Your task to perform on an android device: Open the calendar app, open the side menu, and click the "Day" option Image 0: 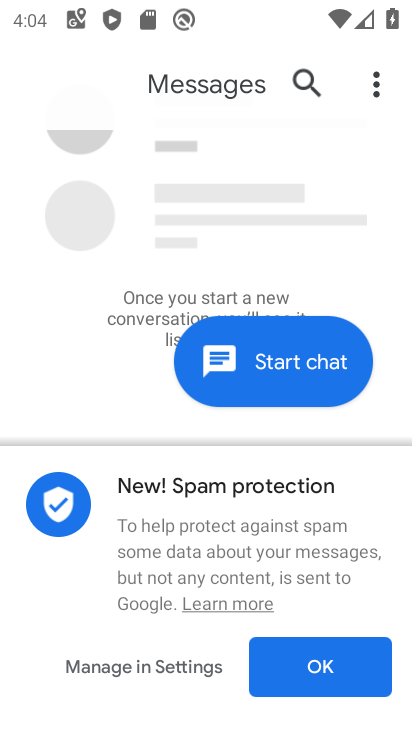
Step 0: press home button
Your task to perform on an android device: Open the calendar app, open the side menu, and click the "Day" option Image 1: 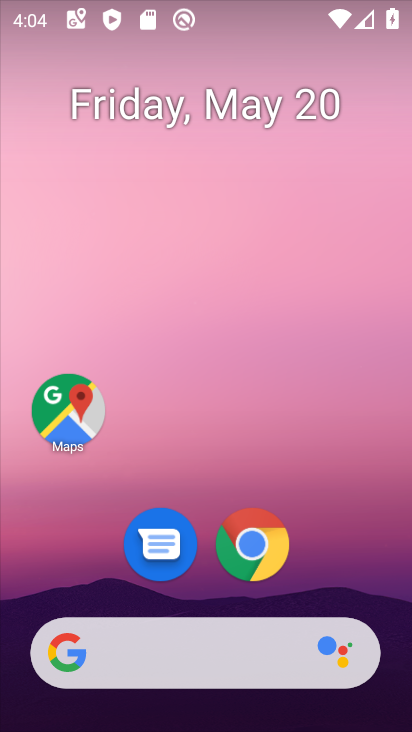
Step 1: drag from (351, 560) to (392, 4)
Your task to perform on an android device: Open the calendar app, open the side menu, and click the "Day" option Image 2: 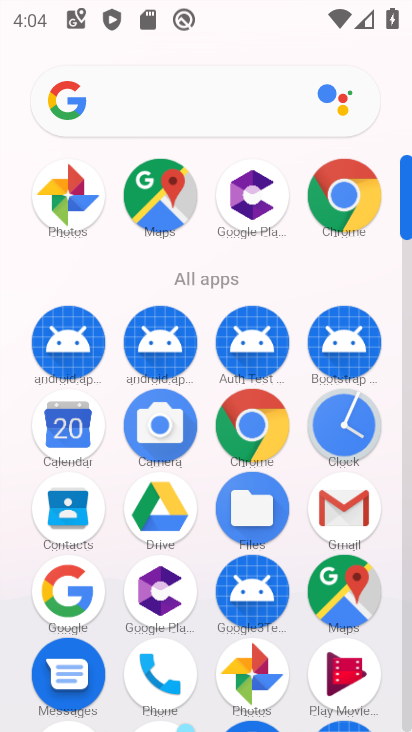
Step 2: click (61, 433)
Your task to perform on an android device: Open the calendar app, open the side menu, and click the "Day" option Image 3: 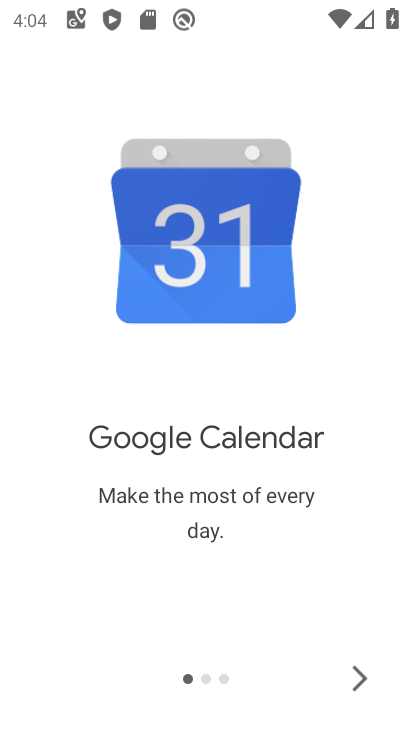
Step 3: click (354, 690)
Your task to perform on an android device: Open the calendar app, open the side menu, and click the "Day" option Image 4: 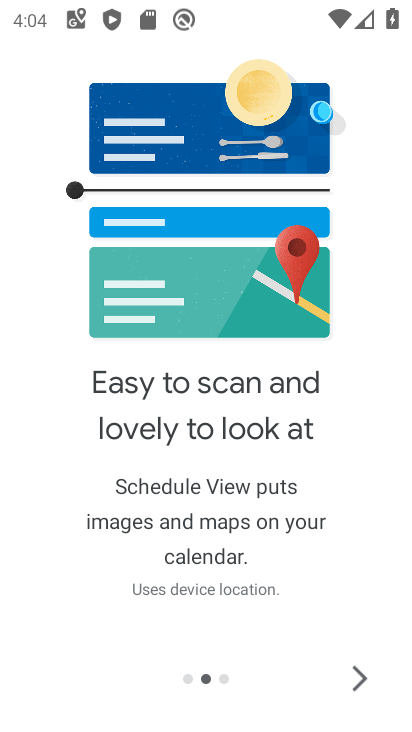
Step 4: click (354, 690)
Your task to perform on an android device: Open the calendar app, open the side menu, and click the "Day" option Image 5: 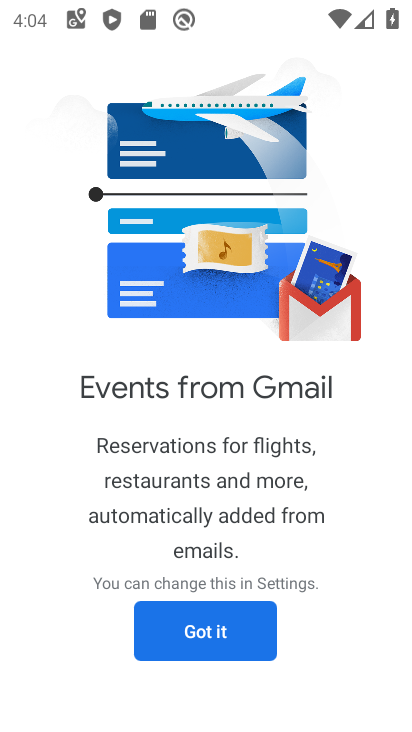
Step 5: click (225, 634)
Your task to perform on an android device: Open the calendar app, open the side menu, and click the "Day" option Image 6: 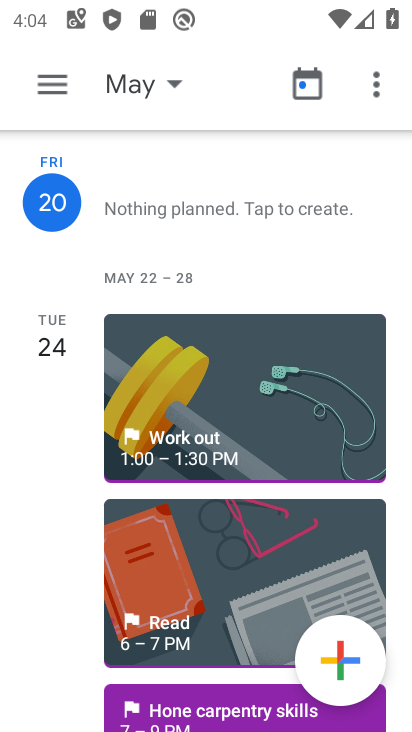
Step 6: click (61, 86)
Your task to perform on an android device: Open the calendar app, open the side menu, and click the "Day" option Image 7: 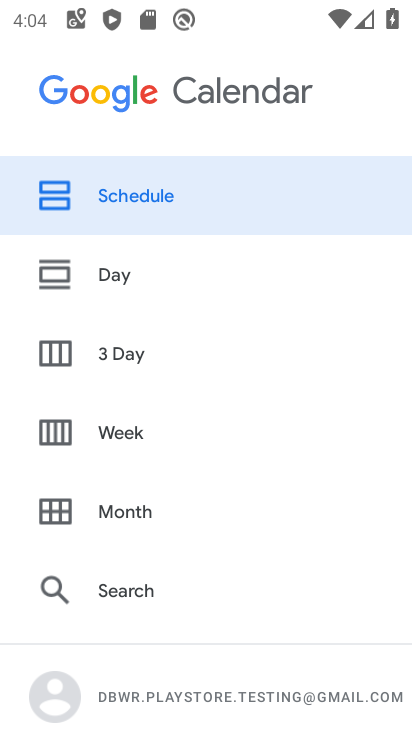
Step 7: click (88, 282)
Your task to perform on an android device: Open the calendar app, open the side menu, and click the "Day" option Image 8: 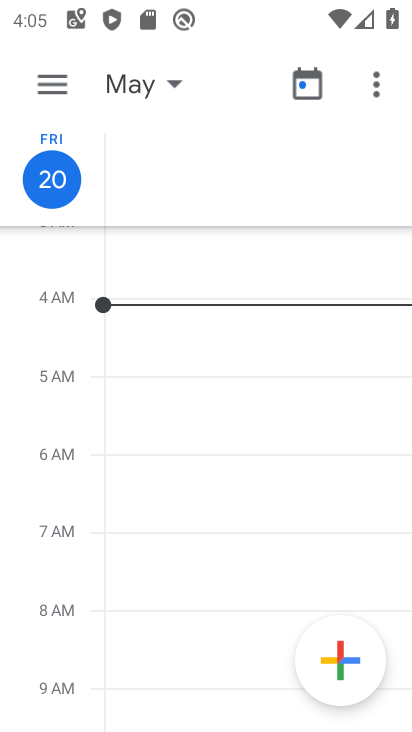
Step 8: task complete